Your task to perform on an android device: turn off javascript in the chrome app Image 0: 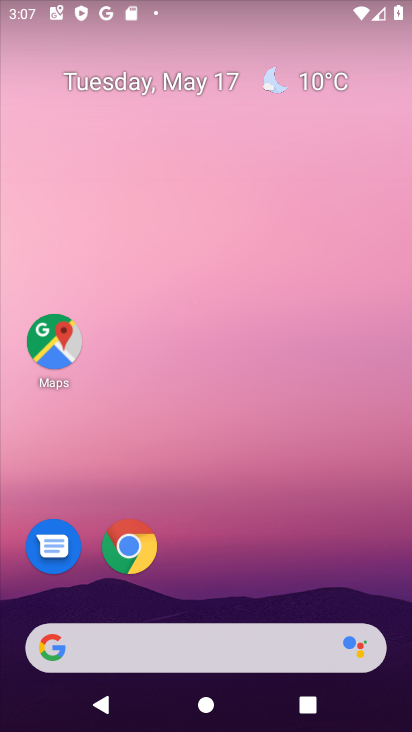
Step 0: click (124, 553)
Your task to perform on an android device: turn off javascript in the chrome app Image 1: 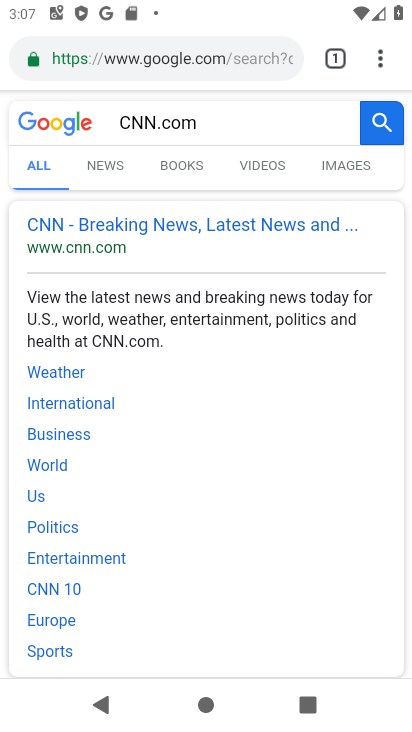
Step 1: click (386, 62)
Your task to perform on an android device: turn off javascript in the chrome app Image 2: 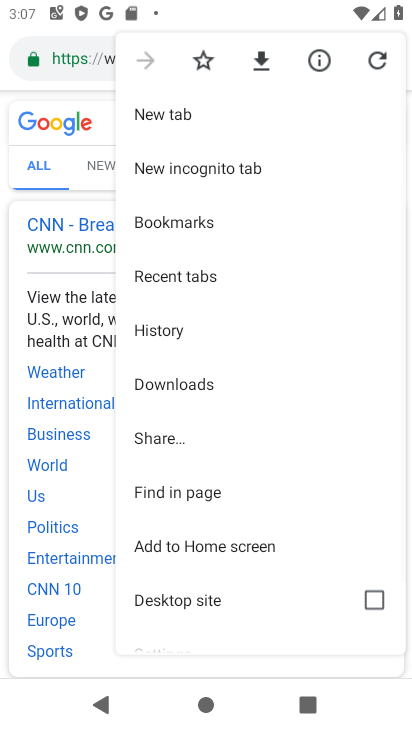
Step 2: drag from (207, 565) to (262, 233)
Your task to perform on an android device: turn off javascript in the chrome app Image 3: 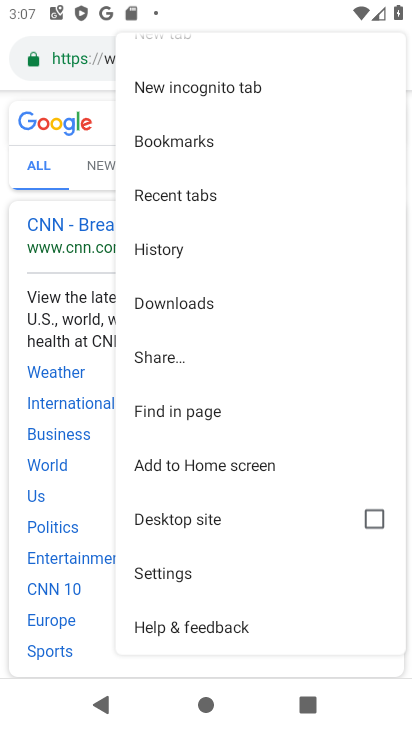
Step 3: click (167, 572)
Your task to perform on an android device: turn off javascript in the chrome app Image 4: 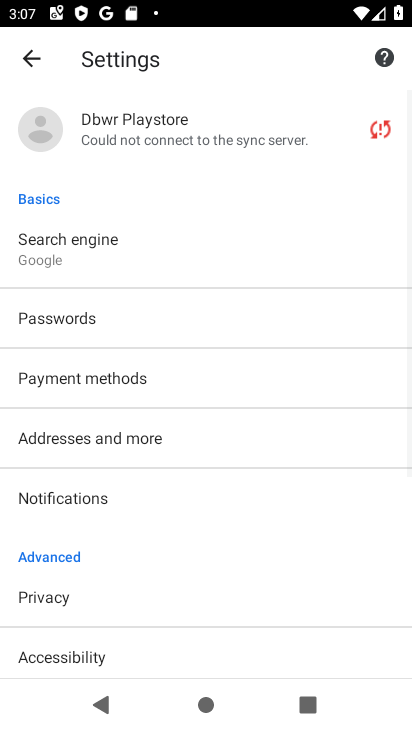
Step 4: drag from (126, 583) to (199, 268)
Your task to perform on an android device: turn off javascript in the chrome app Image 5: 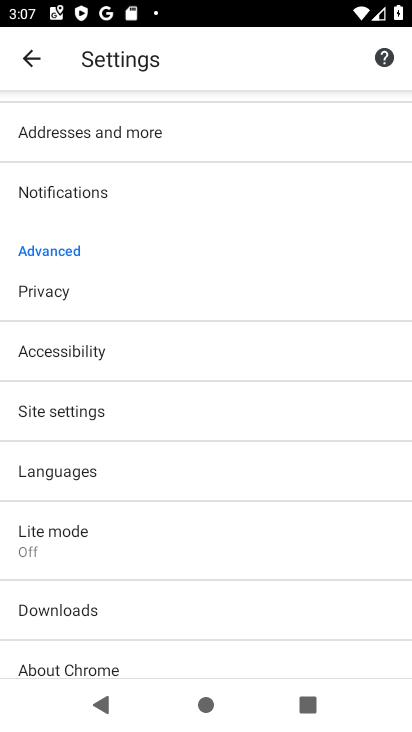
Step 5: click (82, 416)
Your task to perform on an android device: turn off javascript in the chrome app Image 6: 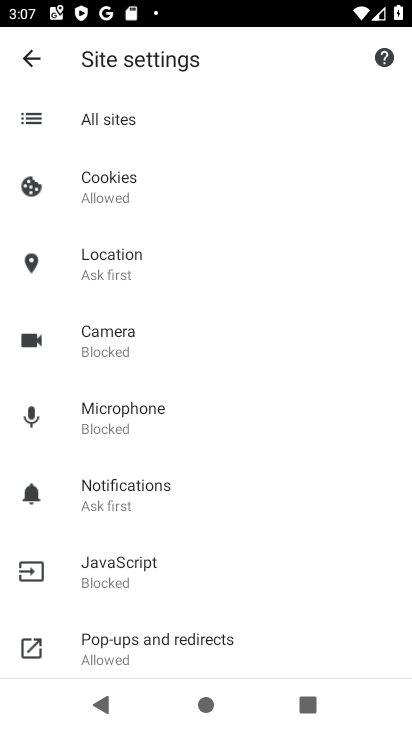
Step 6: click (138, 579)
Your task to perform on an android device: turn off javascript in the chrome app Image 7: 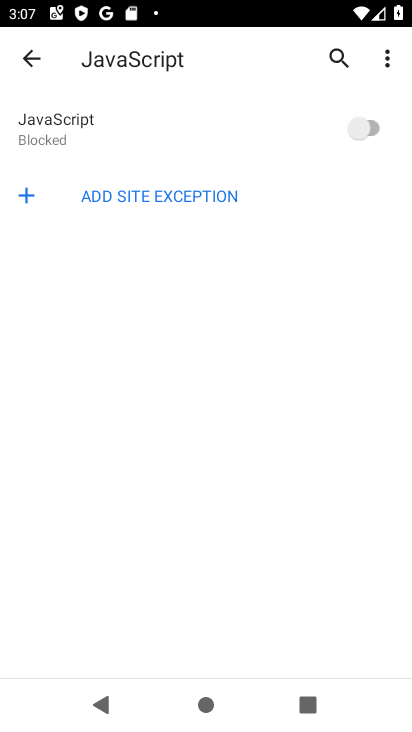
Step 7: task complete